Your task to perform on an android device: check storage Image 0: 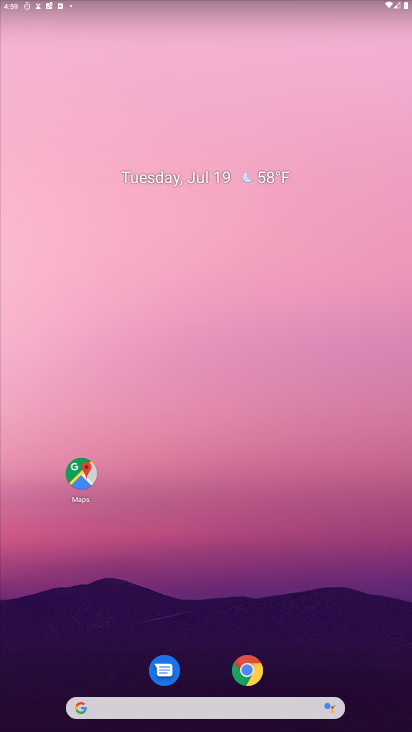
Step 0: drag from (319, 688) to (316, 224)
Your task to perform on an android device: check storage Image 1: 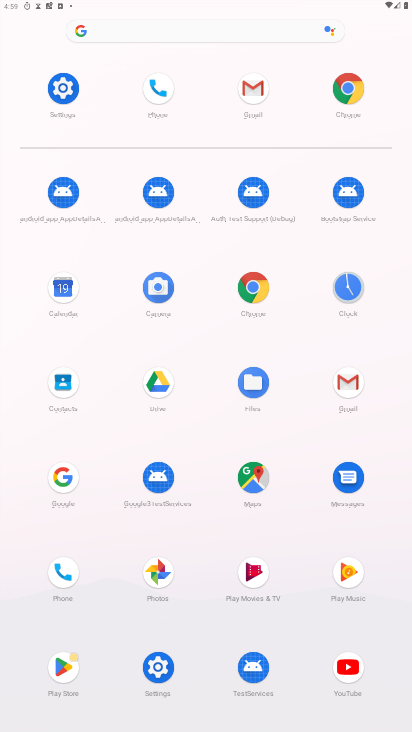
Step 1: click (155, 659)
Your task to perform on an android device: check storage Image 2: 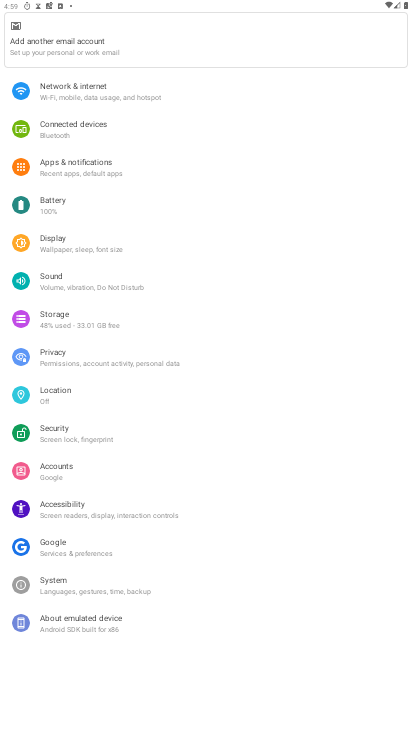
Step 2: click (71, 314)
Your task to perform on an android device: check storage Image 3: 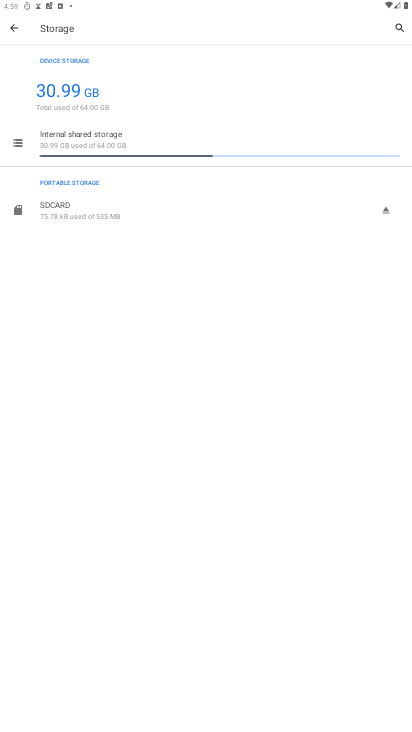
Step 3: task complete